Your task to perform on an android device: Go to sound settings Image 0: 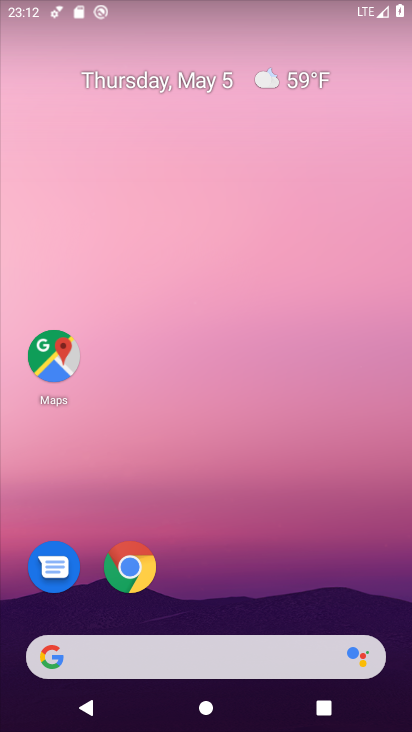
Step 0: drag from (279, 570) to (294, 5)
Your task to perform on an android device: Go to sound settings Image 1: 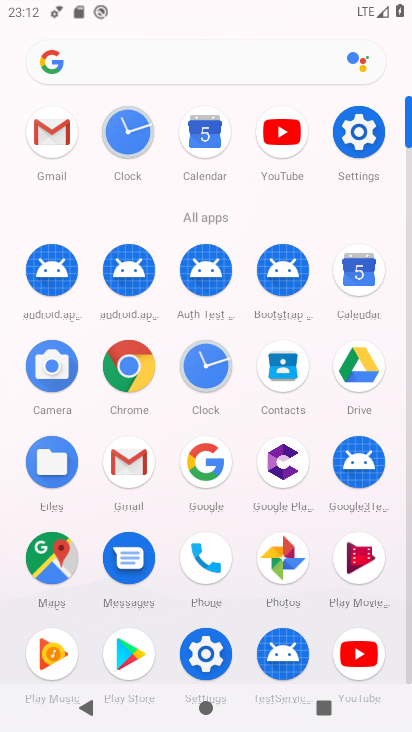
Step 1: click (359, 139)
Your task to perform on an android device: Go to sound settings Image 2: 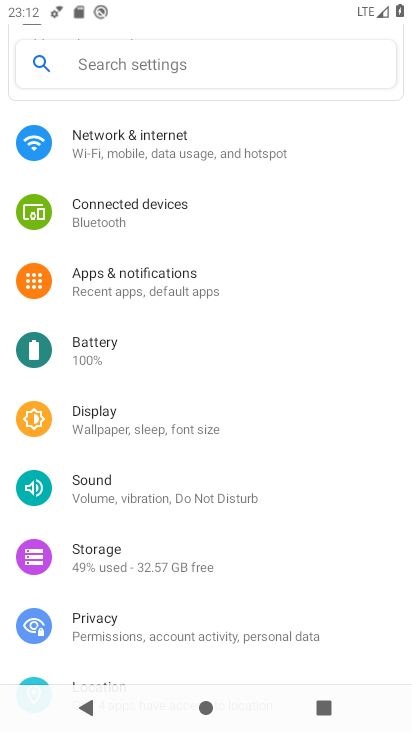
Step 2: click (98, 492)
Your task to perform on an android device: Go to sound settings Image 3: 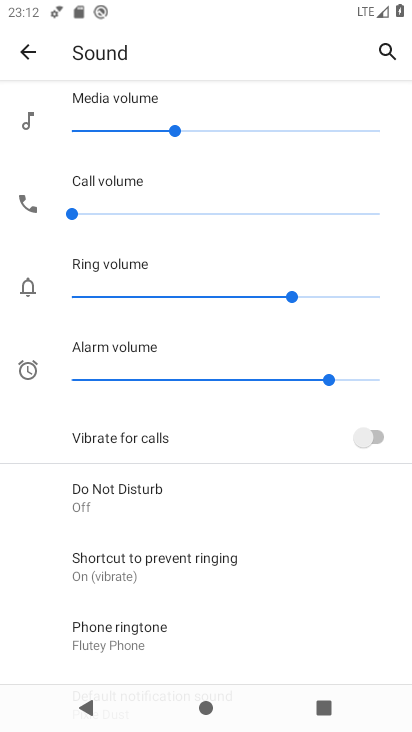
Step 3: task complete